Your task to perform on an android device: Open the Play Movies app and select the watchlist tab. Image 0: 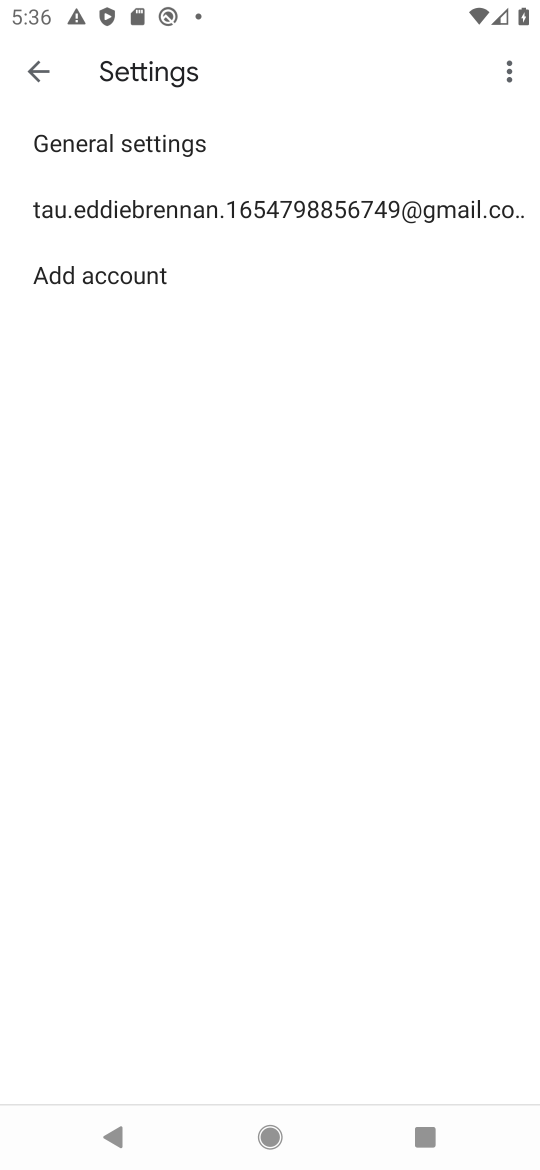
Step 0: press home button
Your task to perform on an android device: Open the Play Movies app and select the watchlist tab. Image 1: 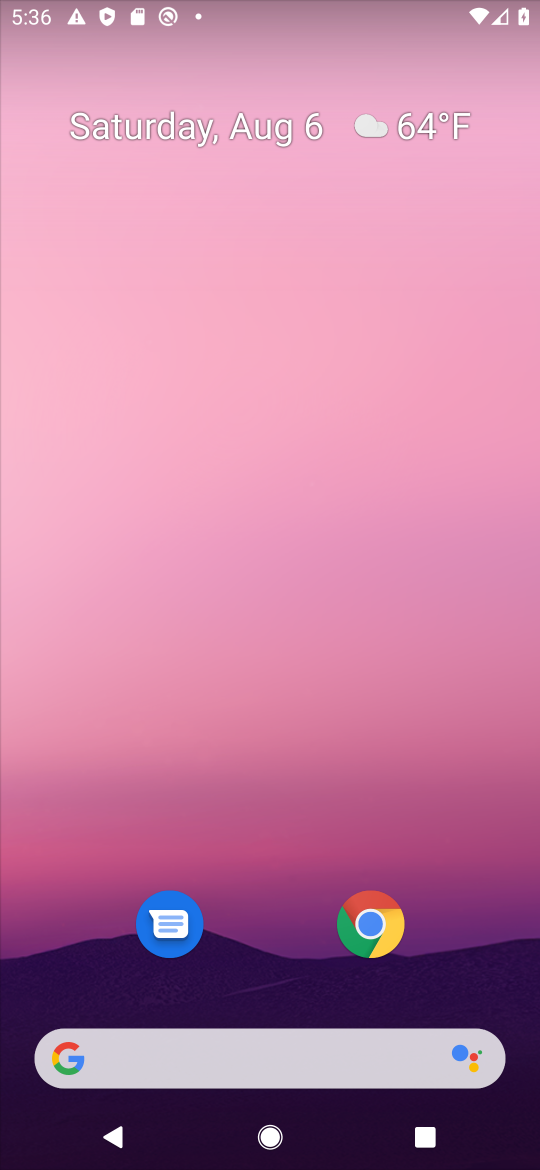
Step 1: drag from (408, 1120) to (537, 467)
Your task to perform on an android device: Open the Play Movies app and select the watchlist tab. Image 2: 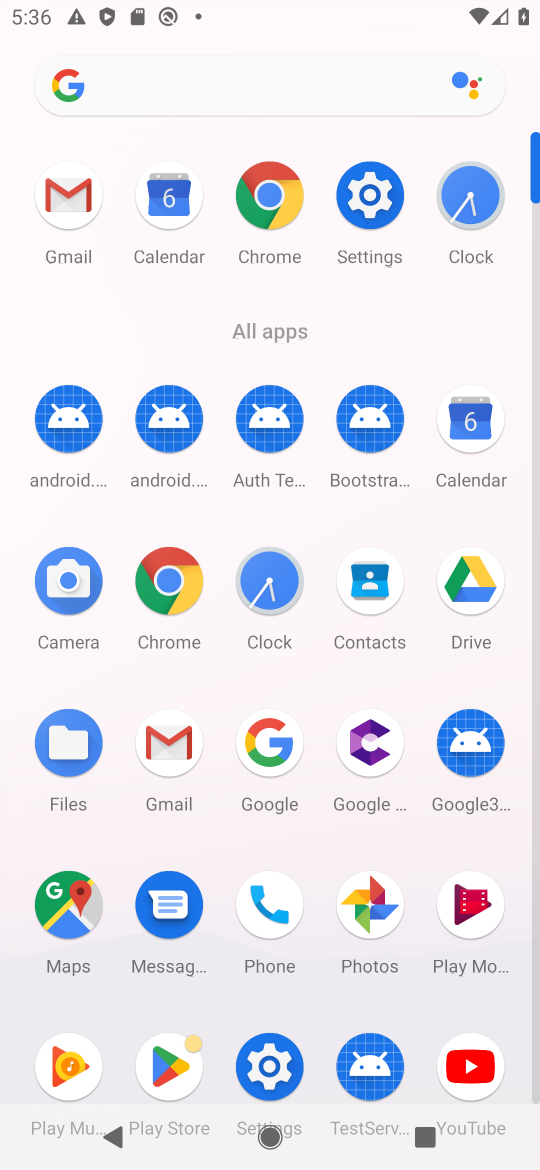
Step 2: click (472, 923)
Your task to perform on an android device: Open the Play Movies app and select the watchlist tab. Image 3: 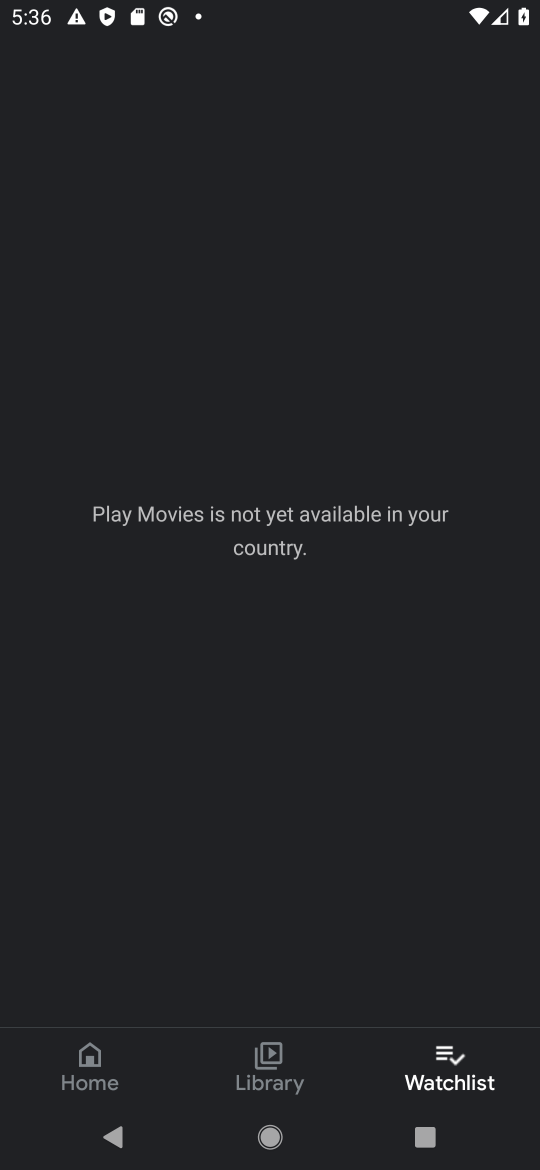
Step 3: task complete